Your task to perform on an android device: Go to location settings Image 0: 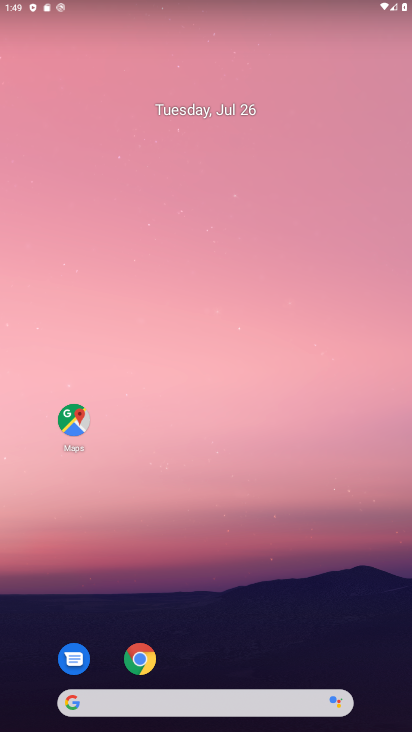
Step 0: drag from (304, 612) to (269, 199)
Your task to perform on an android device: Go to location settings Image 1: 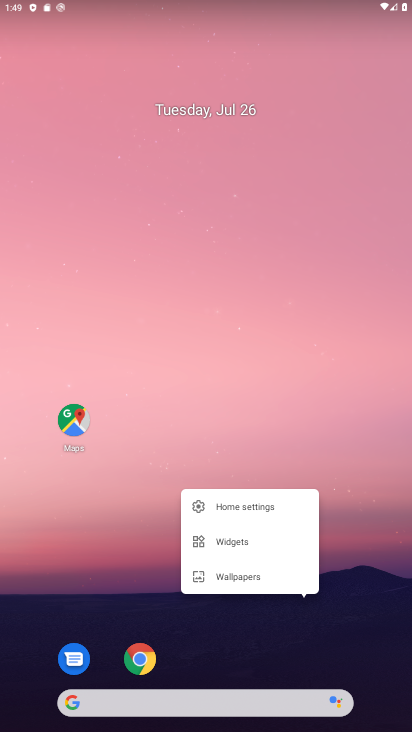
Step 1: click (268, 251)
Your task to perform on an android device: Go to location settings Image 2: 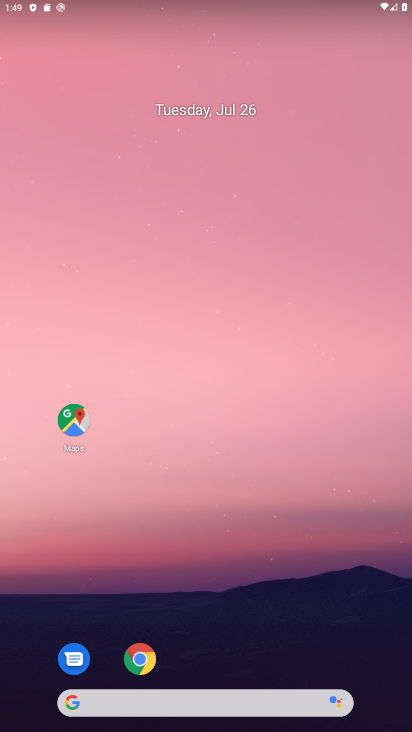
Step 2: drag from (272, 574) to (313, 33)
Your task to perform on an android device: Go to location settings Image 3: 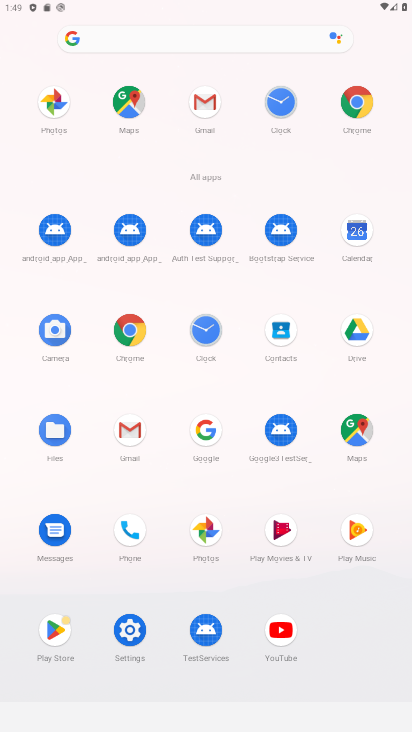
Step 3: click (142, 627)
Your task to perform on an android device: Go to location settings Image 4: 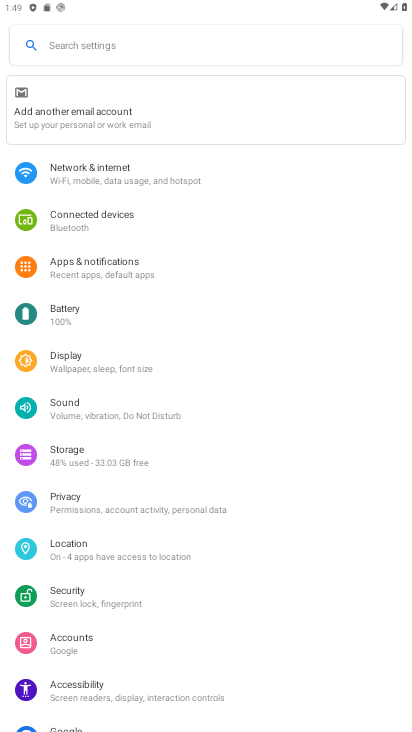
Step 4: click (105, 558)
Your task to perform on an android device: Go to location settings Image 5: 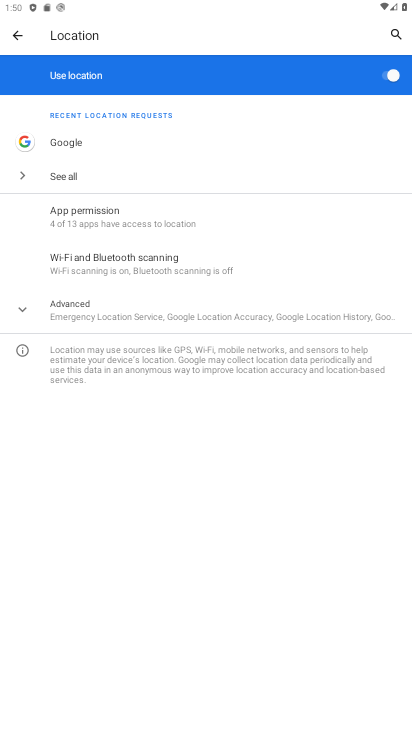
Step 5: task complete